Your task to perform on an android device: Open Amazon Image 0: 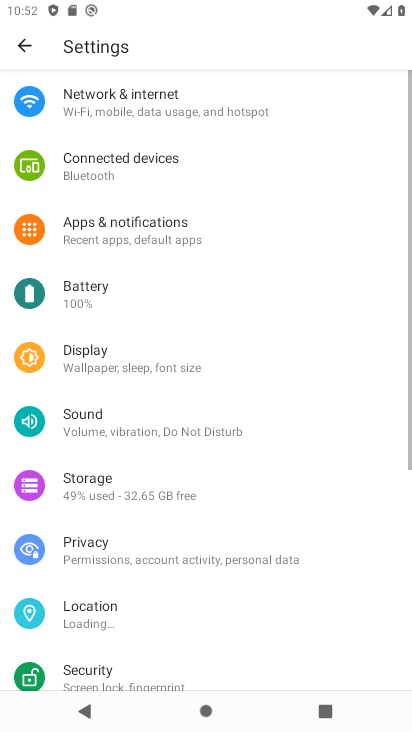
Step 0: press home button
Your task to perform on an android device: Open Amazon Image 1: 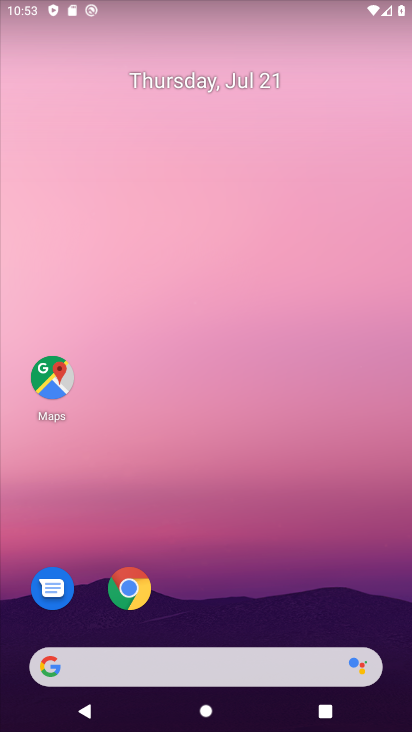
Step 1: drag from (209, 657) to (167, 9)
Your task to perform on an android device: Open Amazon Image 2: 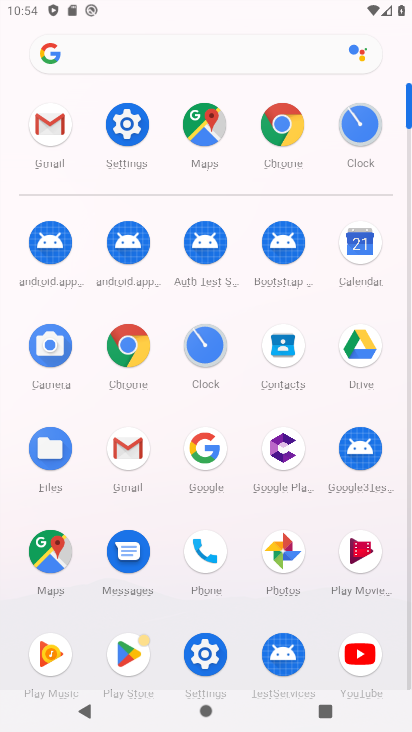
Step 2: click (283, 136)
Your task to perform on an android device: Open Amazon Image 3: 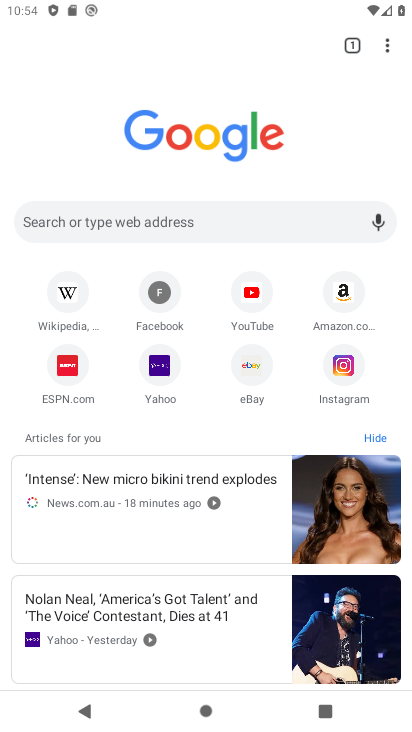
Step 3: click (331, 302)
Your task to perform on an android device: Open Amazon Image 4: 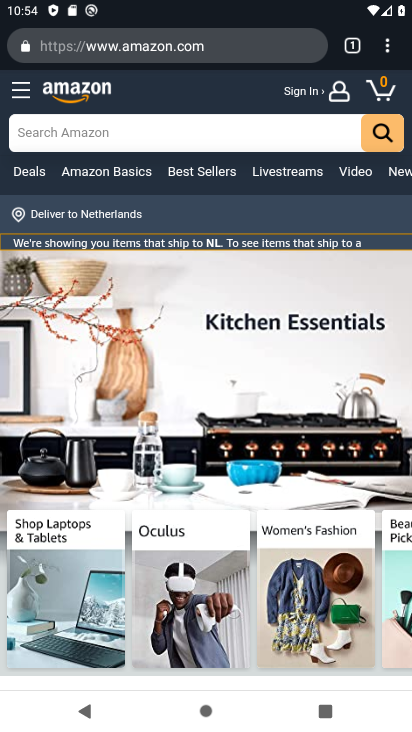
Step 4: task complete